Your task to perform on an android device: Open location settings Image 0: 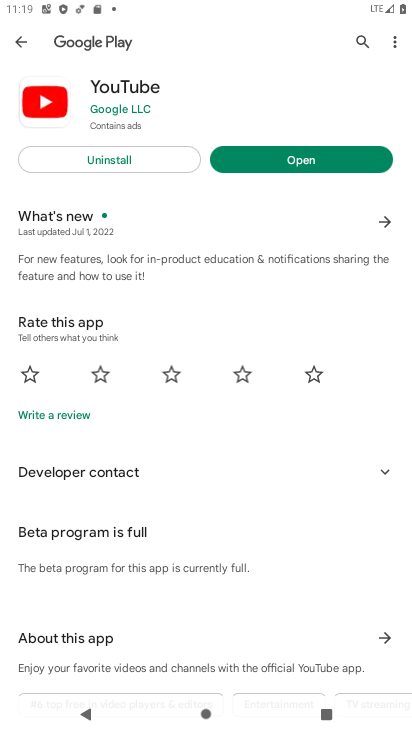
Step 0: drag from (267, 9) to (148, 614)
Your task to perform on an android device: Open location settings Image 1: 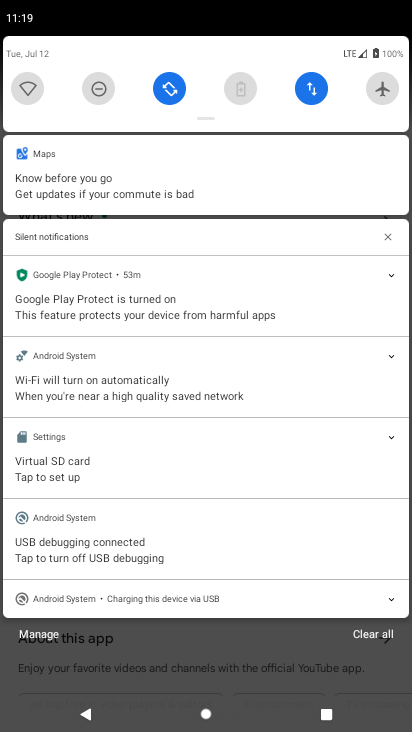
Step 1: drag from (216, 60) to (182, 504)
Your task to perform on an android device: Open location settings Image 2: 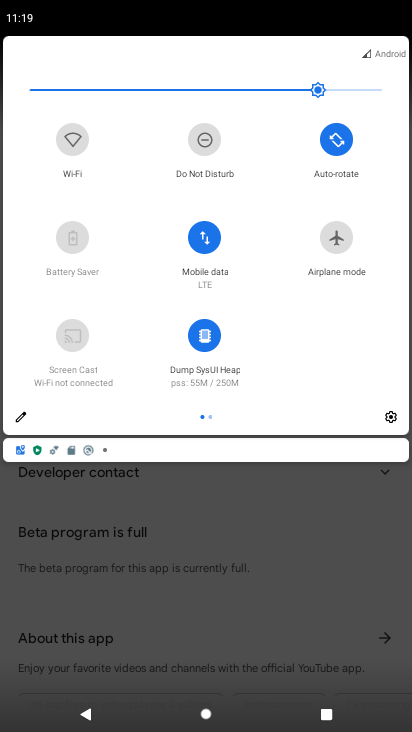
Step 2: click (395, 419)
Your task to perform on an android device: Open location settings Image 3: 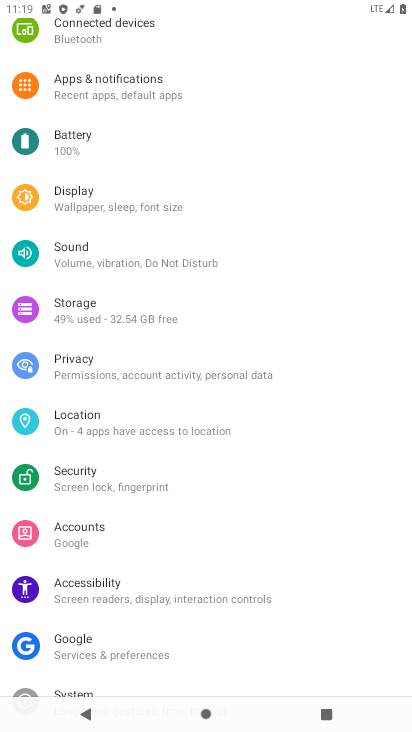
Step 3: click (119, 426)
Your task to perform on an android device: Open location settings Image 4: 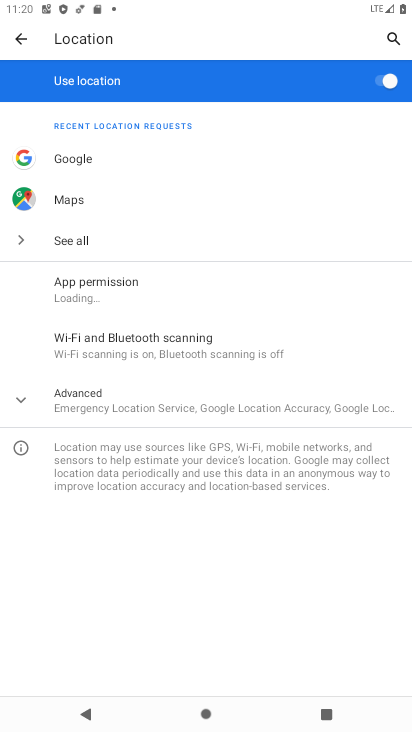
Step 4: task complete